Your task to perform on an android device: Open the calendar app, open the side menu, and click the "Day" option Image 0: 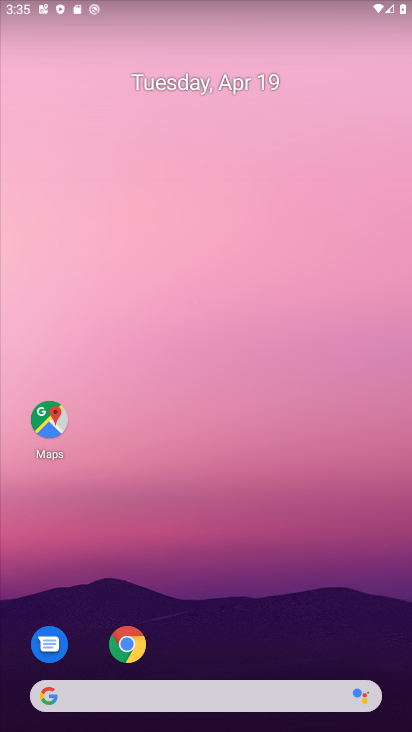
Step 0: drag from (207, 618) to (338, 48)
Your task to perform on an android device: Open the calendar app, open the side menu, and click the "Day" option Image 1: 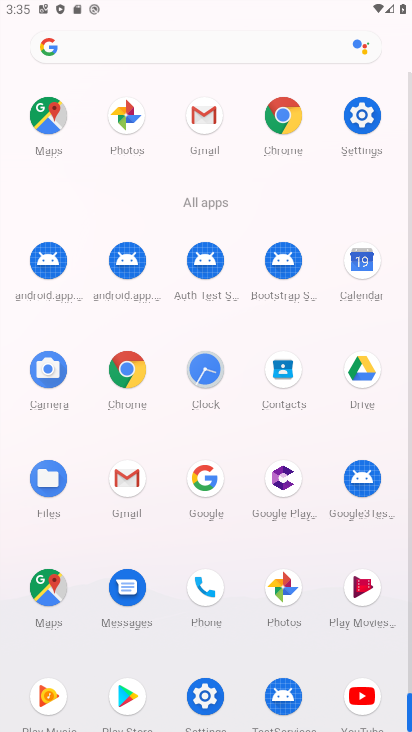
Step 1: click (363, 266)
Your task to perform on an android device: Open the calendar app, open the side menu, and click the "Day" option Image 2: 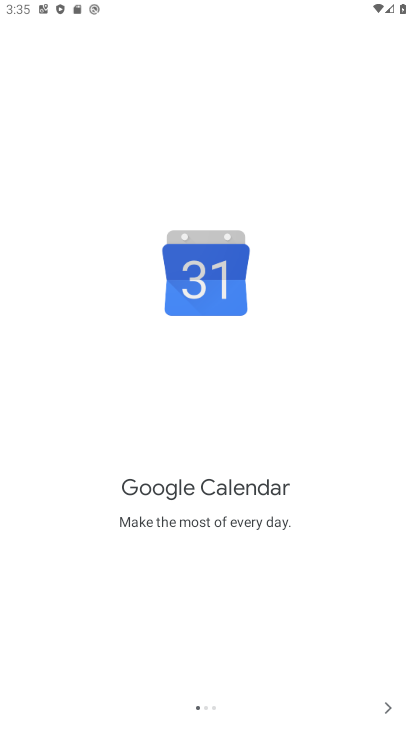
Step 2: click (385, 698)
Your task to perform on an android device: Open the calendar app, open the side menu, and click the "Day" option Image 3: 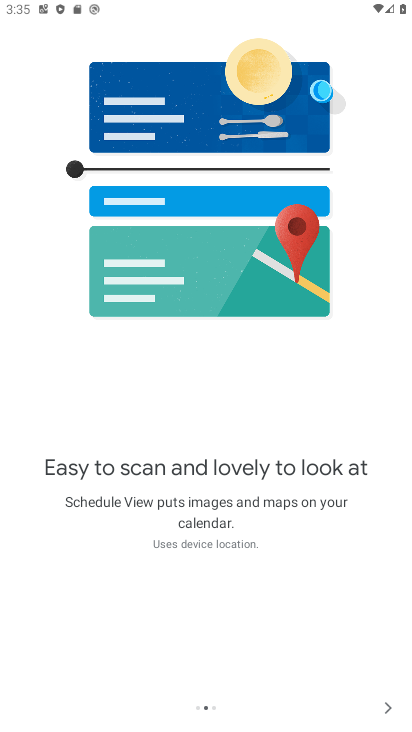
Step 3: click (388, 702)
Your task to perform on an android device: Open the calendar app, open the side menu, and click the "Day" option Image 4: 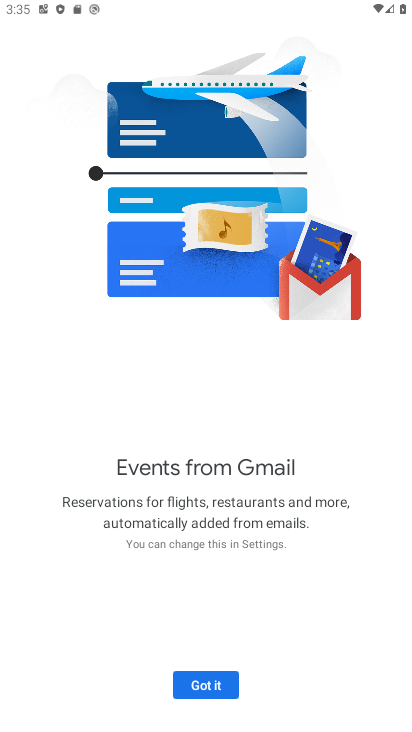
Step 4: click (228, 687)
Your task to perform on an android device: Open the calendar app, open the side menu, and click the "Day" option Image 5: 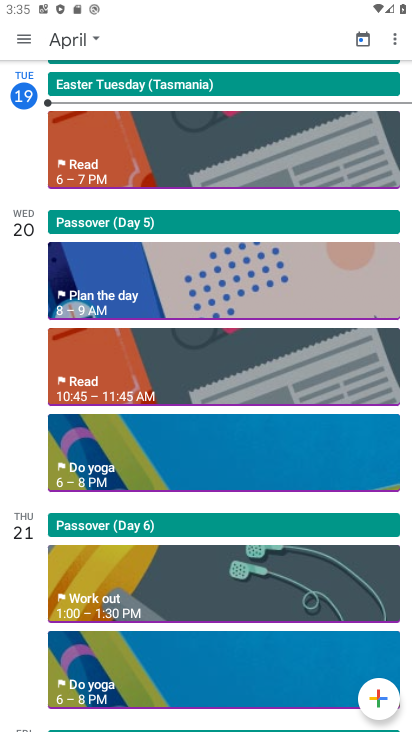
Step 5: click (18, 43)
Your task to perform on an android device: Open the calendar app, open the side menu, and click the "Day" option Image 6: 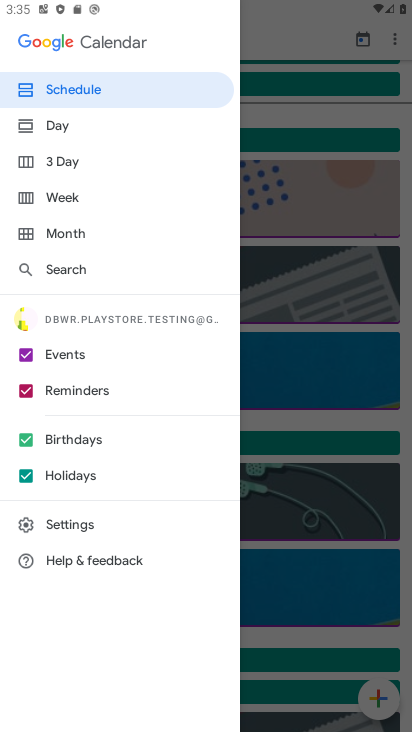
Step 6: click (97, 123)
Your task to perform on an android device: Open the calendar app, open the side menu, and click the "Day" option Image 7: 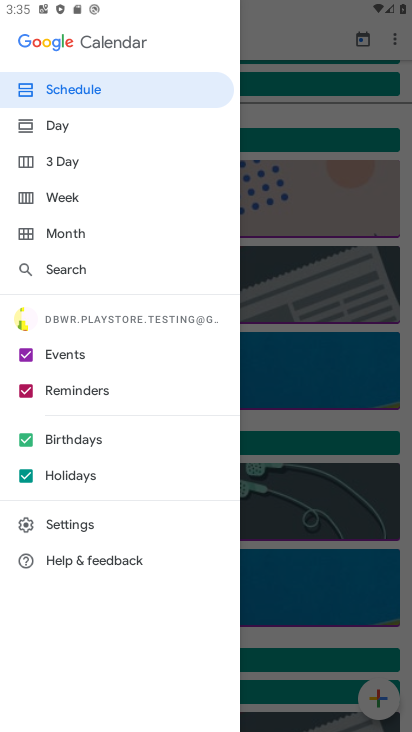
Step 7: click (80, 122)
Your task to perform on an android device: Open the calendar app, open the side menu, and click the "Day" option Image 8: 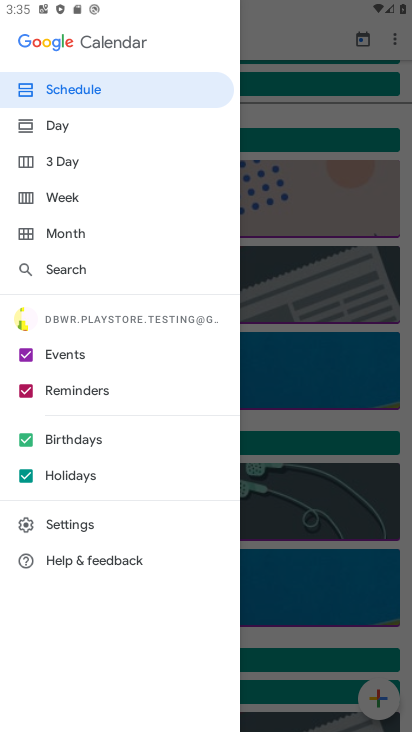
Step 8: click (71, 121)
Your task to perform on an android device: Open the calendar app, open the side menu, and click the "Day" option Image 9: 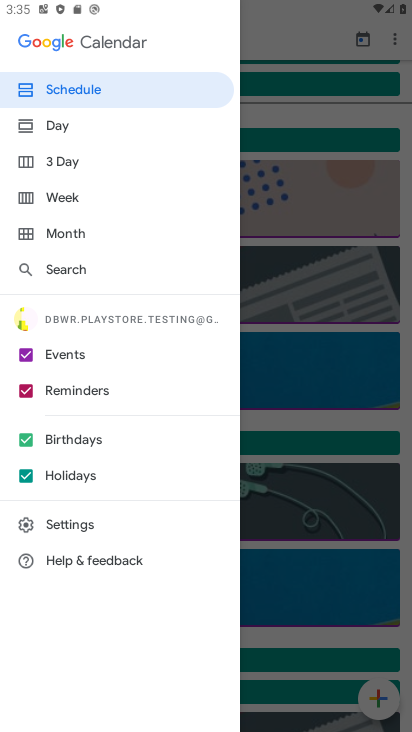
Step 9: click (81, 128)
Your task to perform on an android device: Open the calendar app, open the side menu, and click the "Day" option Image 10: 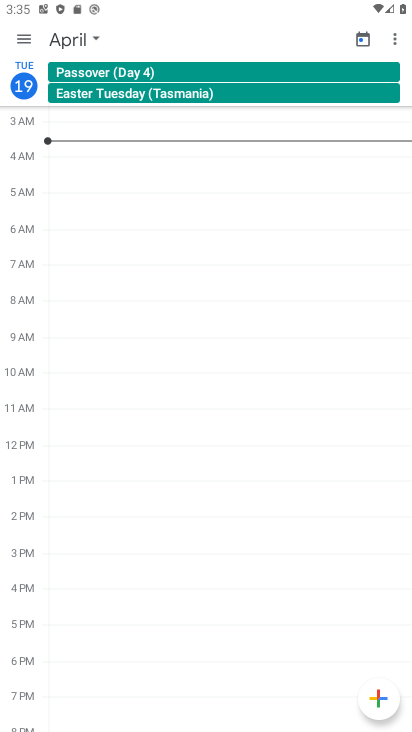
Step 10: task complete